Your task to perform on an android device: change notifications settings Image 0: 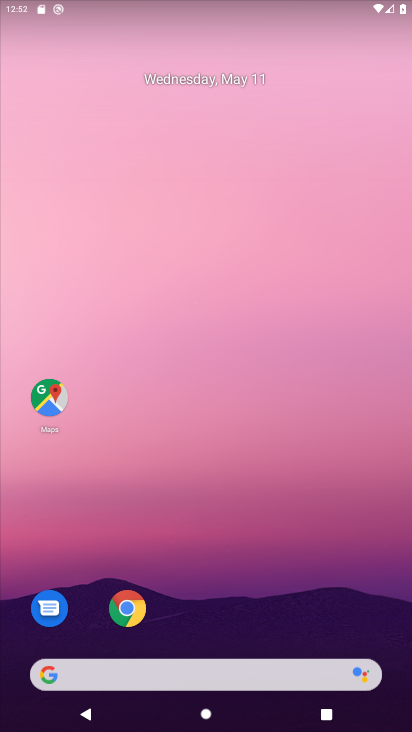
Step 0: drag from (265, 602) to (215, 98)
Your task to perform on an android device: change notifications settings Image 1: 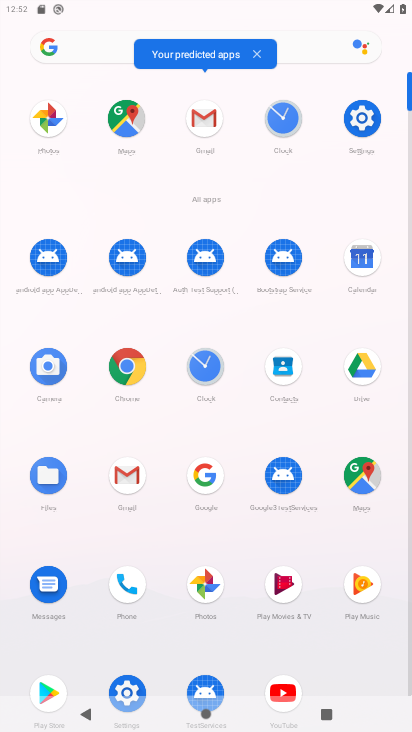
Step 1: click (128, 682)
Your task to perform on an android device: change notifications settings Image 2: 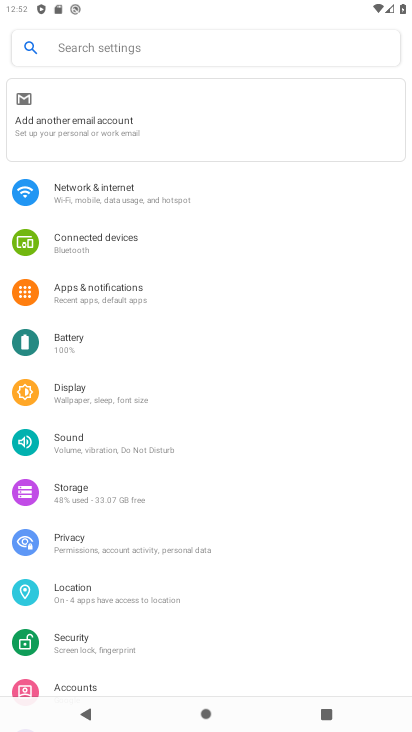
Step 2: click (106, 290)
Your task to perform on an android device: change notifications settings Image 3: 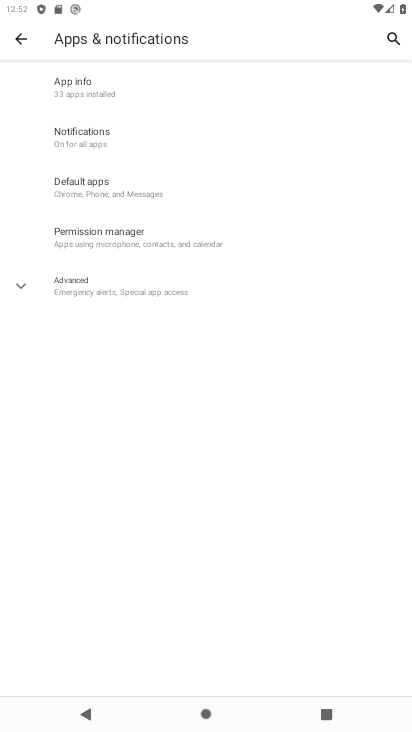
Step 3: drag from (256, 263) to (256, 664)
Your task to perform on an android device: change notifications settings Image 4: 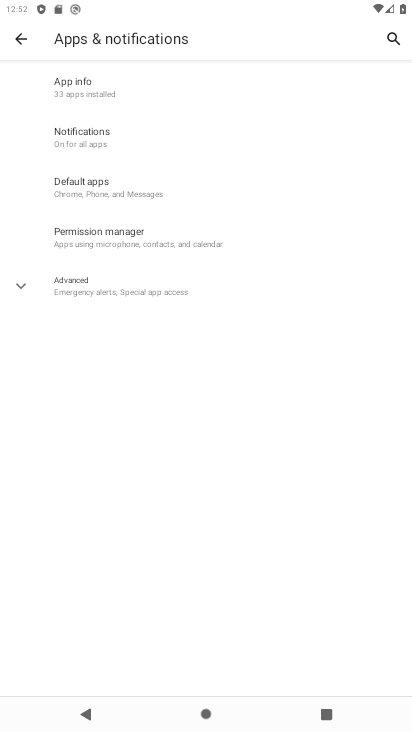
Step 4: click (113, 139)
Your task to perform on an android device: change notifications settings Image 5: 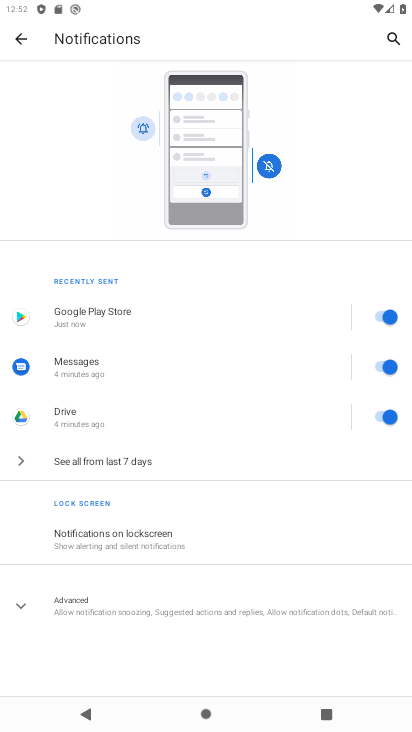
Step 5: drag from (176, 567) to (225, 256)
Your task to perform on an android device: change notifications settings Image 6: 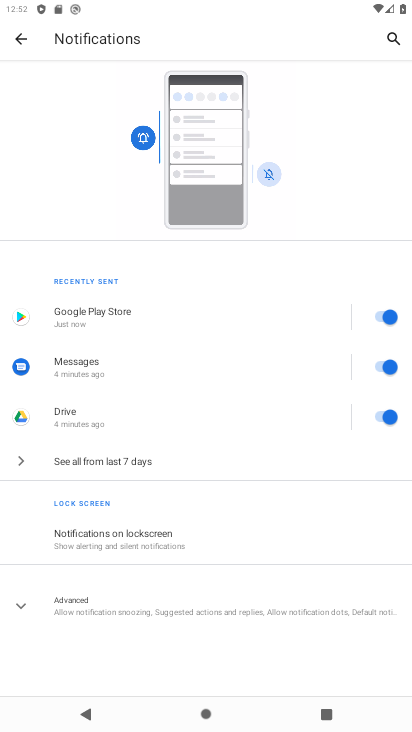
Step 6: drag from (252, 581) to (260, 280)
Your task to perform on an android device: change notifications settings Image 7: 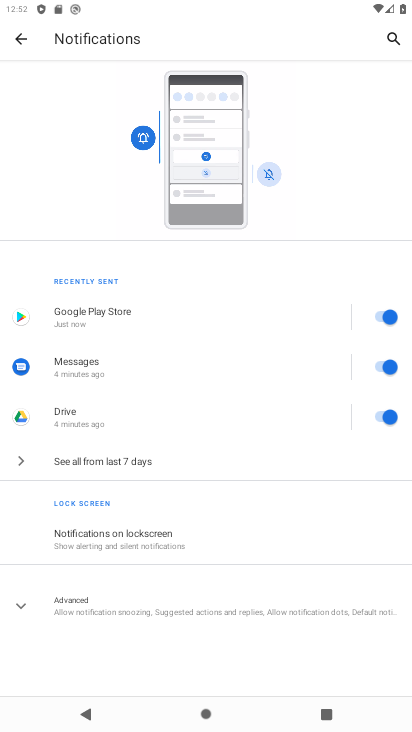
Step 7: drag from (310, 489) to (299, 206)
Your task to perform on an android device: change notifications settings Image 8: 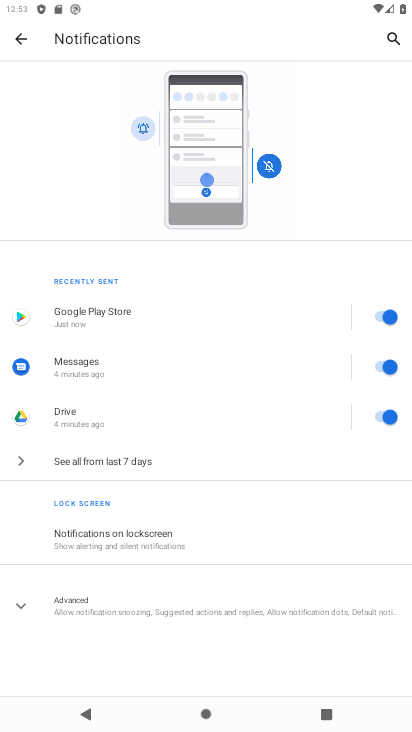
Step 8: click (88, 540)
Your task to perform on an android device: change notifications settings Image 9: 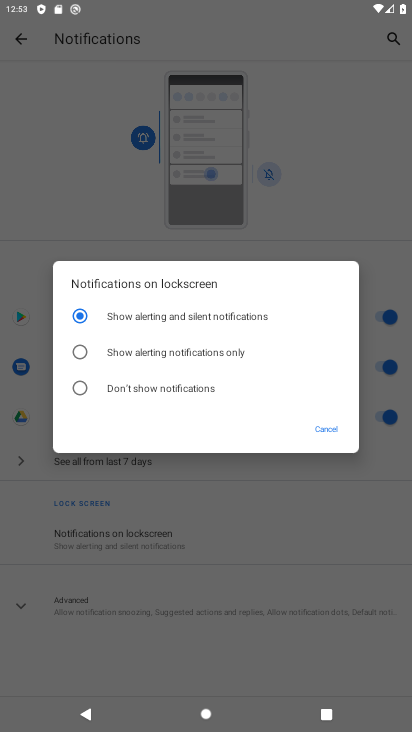
Step 9: click (91, 398)
Your task to perform on an android device: change notifications settings Image 10: 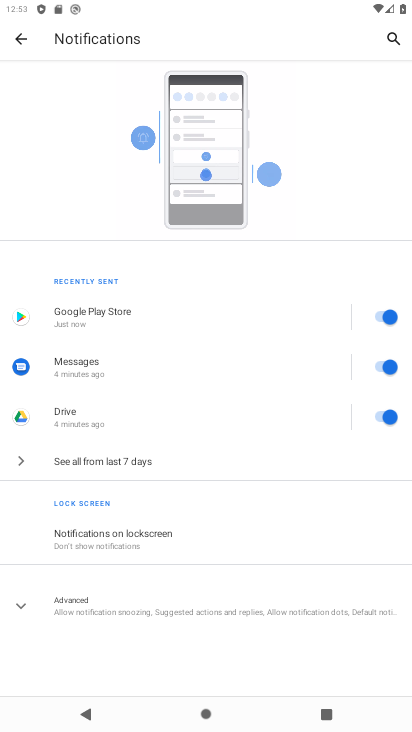
Step 10: task complete